Your task to perform on an android device: Open calendar and show me the first week of next month Image 0: 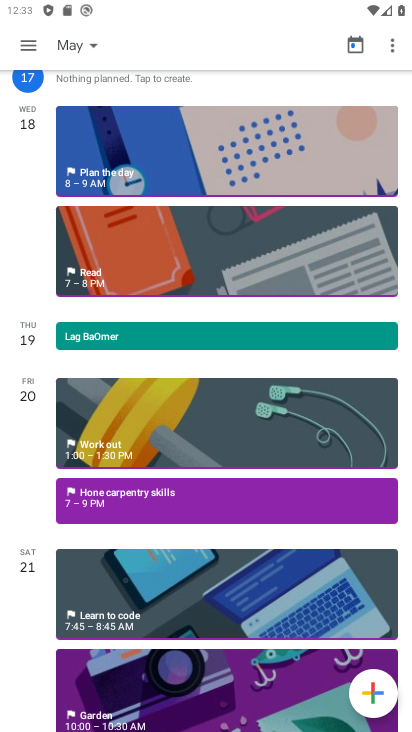
Step 0: press home button
Your task to perform on an android device: Open calendar and show me the first week of next month Image 1: 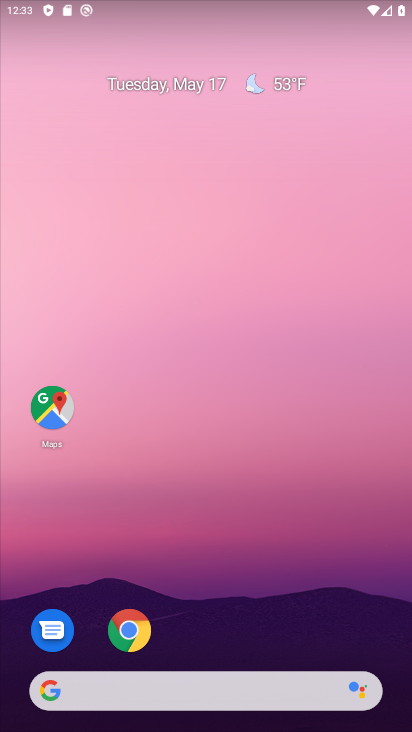
Step 1: drag from (174, 614) to (245, 122)
Your task to perform on an android device: Open calendar and show me the first week of next month Image 2: 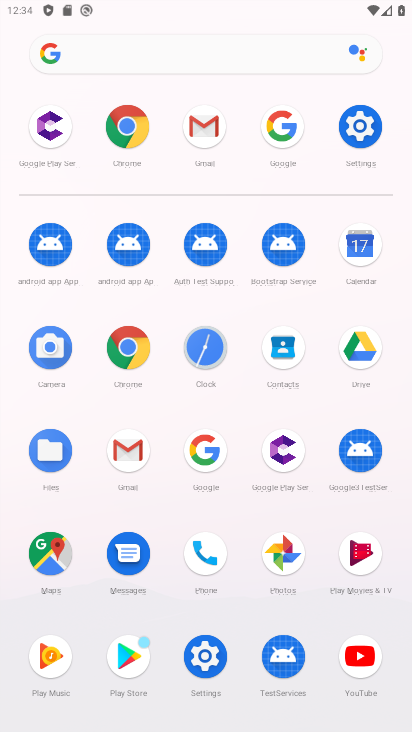
Step 2: click (364, 271)
Your task to perform on an android device: Open calendar and show me the first week of next month Image 3: 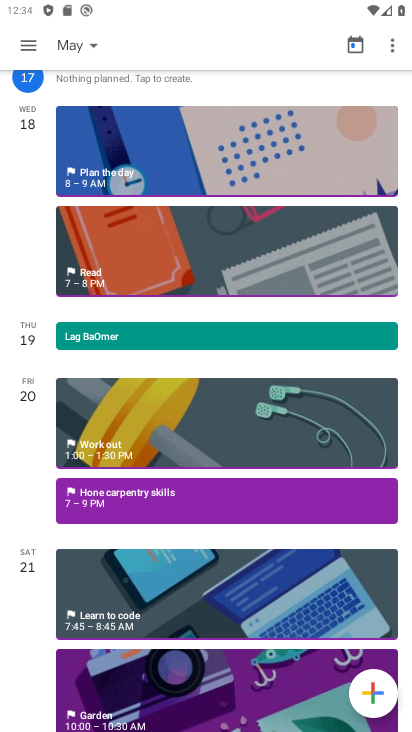
Step 3: click (83, 47)
Your task to perform on an android device: Open calendar and show me the first week of next month Image 4: 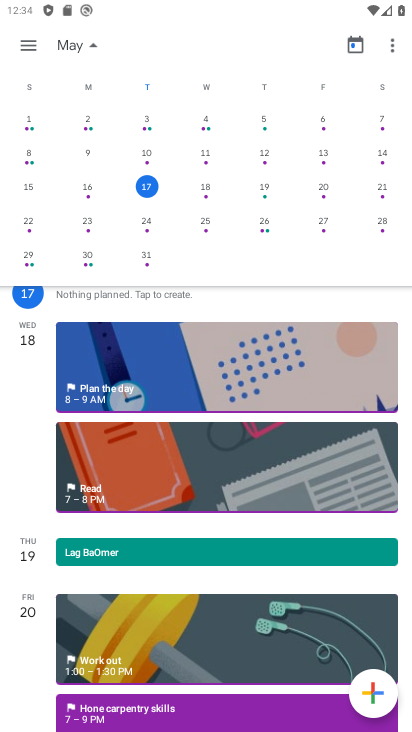
Step 4: drag from (313, 189) to (3, 145)
Your task to perform on an android device: Open calendar and show me the first week of next month Image 5: 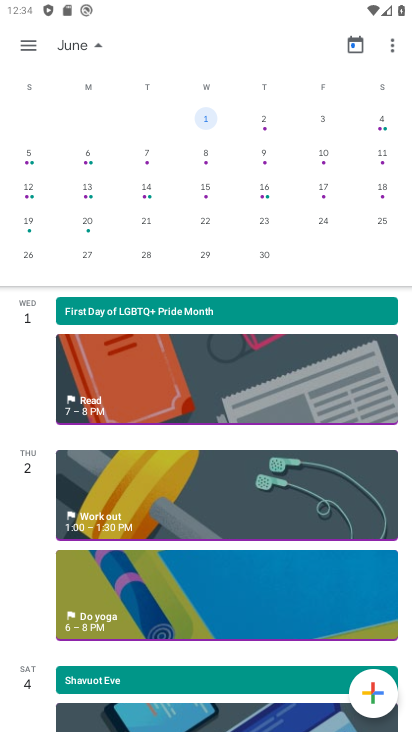
Step 5: click (38, 166)
Your task to perform on an android device: Open calendar and show me the first week of next month Image 6: 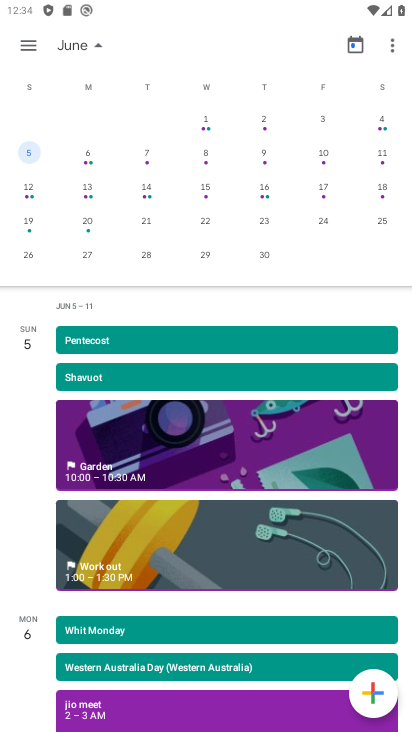
Step 6: task complete